Your task to perform on an android device: turn off notifications in google photos Image 0: 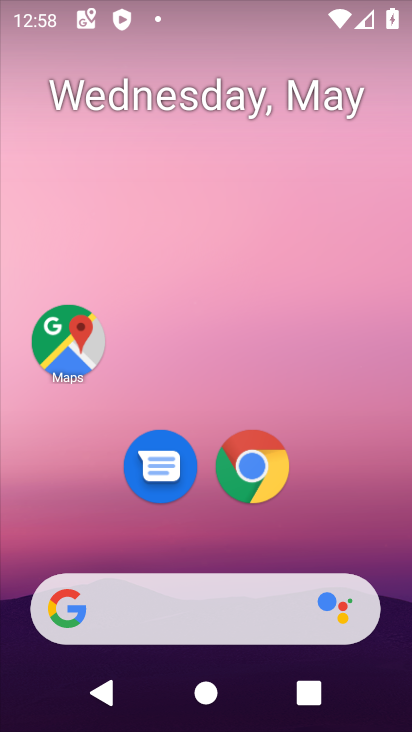
Step 0: drag from (212, 538) to (221, 159)
Your task to perform on an android device: turn off notifications in google photos Image 1: 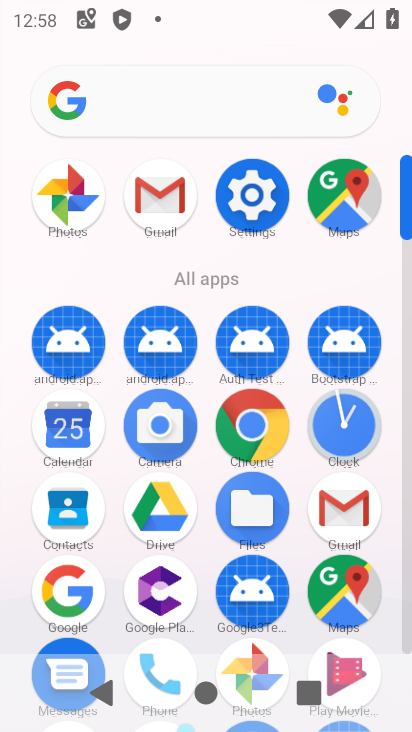
Step 1: drag from (208, 399) to (234, 124)
Your task to perform on an android device: turn off notifications in google photos Image 2: 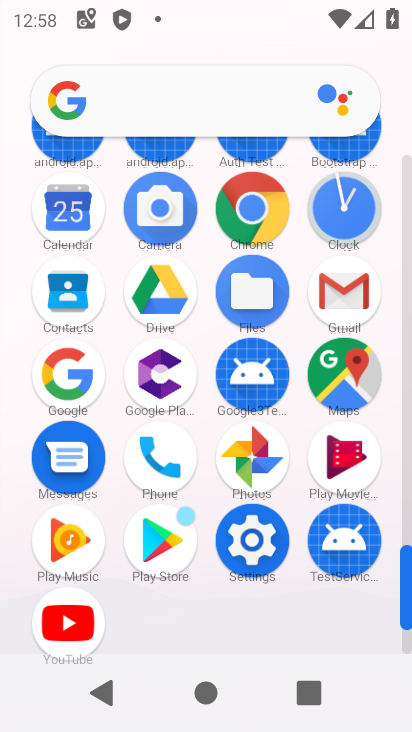
Step 2: click (257, 457)
Your task to perform on an android device: turn off notifications in google photos Image 3: 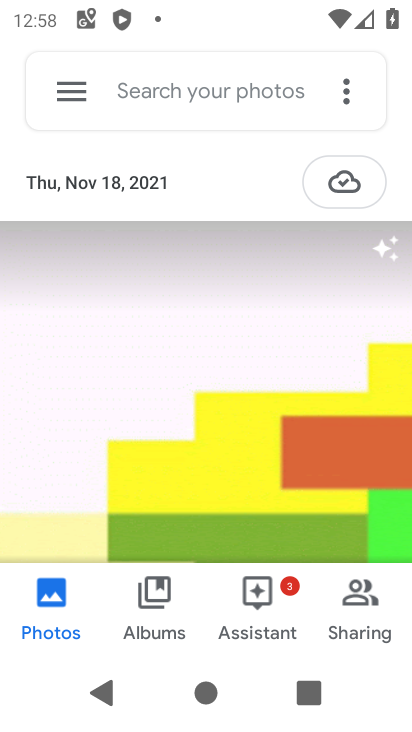
Step 3: click (67, 93)
Your task to perform on an android device: turn off notifications in google photos Image 4: 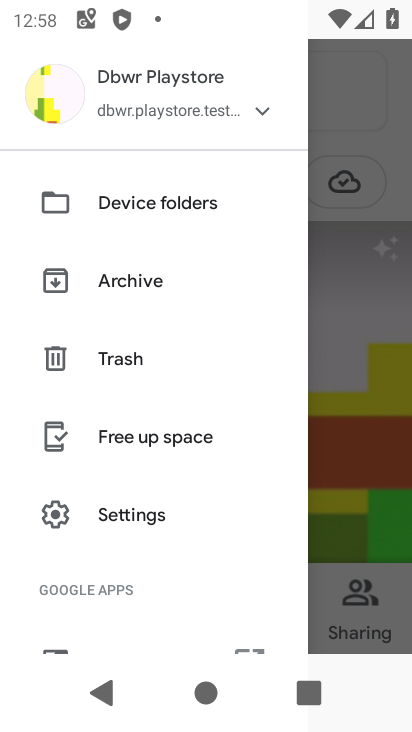
Step 4: click (120, 519)
Your task to perform on an android device: turn off notifications in google photos Image 5: 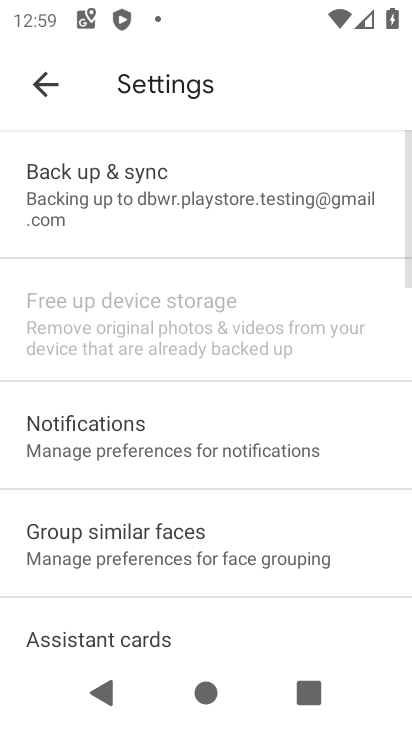
Step 5: click (154, 431)
Your task to perform on an android device: turn off notifications in google photos Image 6: 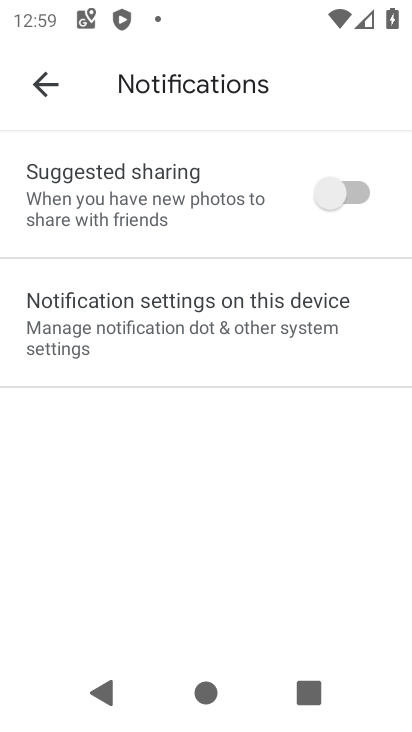
Step 6: click (158, 313)
Your task to perform on an android device: turn off notifications in google photos Image 7: 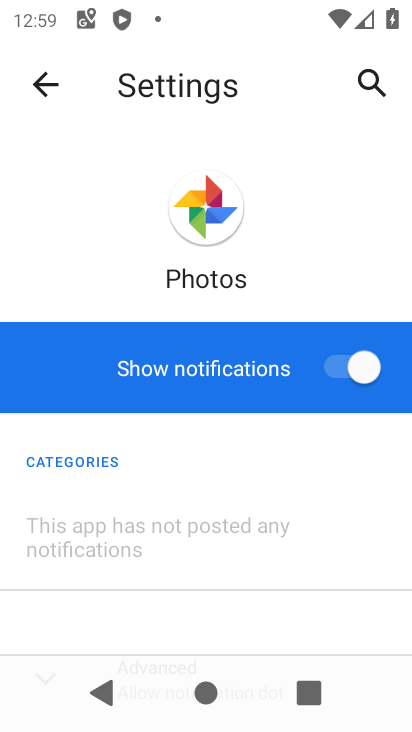
Step 7: click (364, 368)
Your task to perform on an android device: turn off notifications in google photos Image 8: 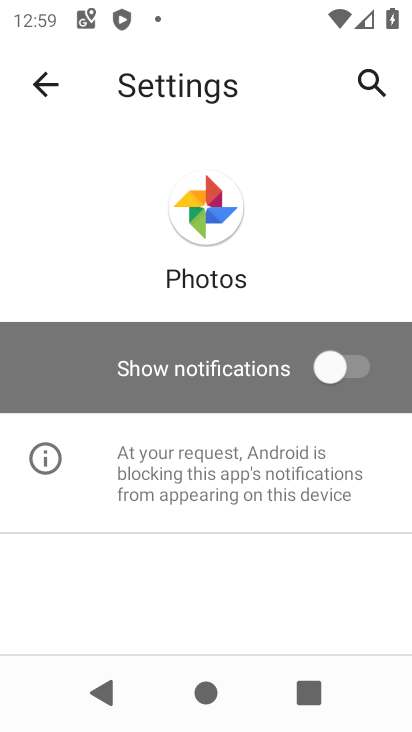
Step 8: task complete